Your task to perform on an android device: Go to wifi settings Image 0: 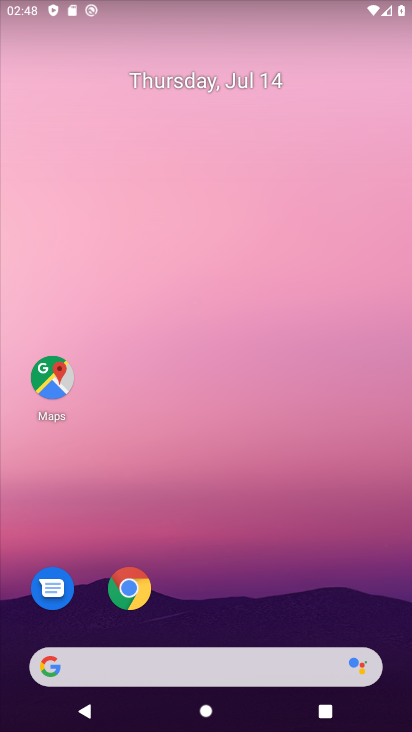
Step 0: drag from (223, 609) to (184, 140)
Your task to perform on an android device: Go to wifi settings Image 1: 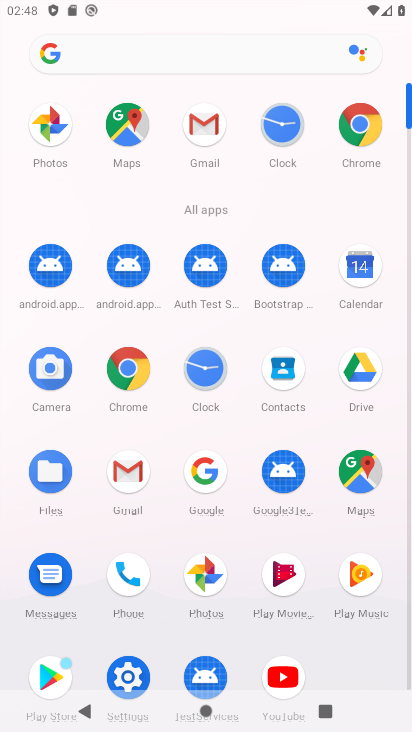
Step 1: click (130, 669)
Your task to perform on an android device: Go to wifi settings Image 2: 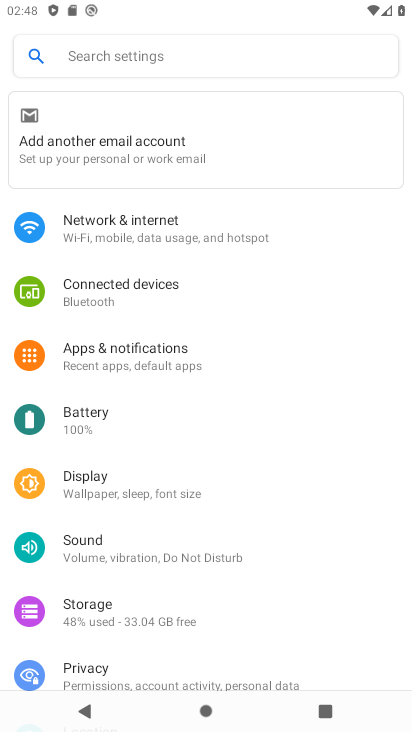
Step 2: click (139, 223)
Your task to perform on an android device: Go to wifi settings Image 3: 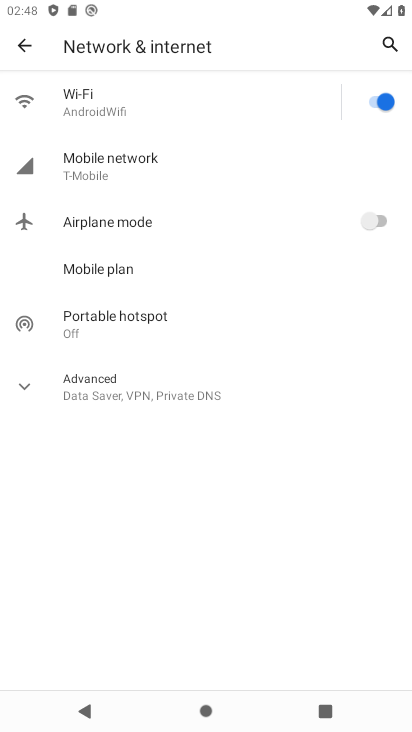
Step 3: click (150, 96)
Your task to perform on an android device: Go to wifi settings Image 4: 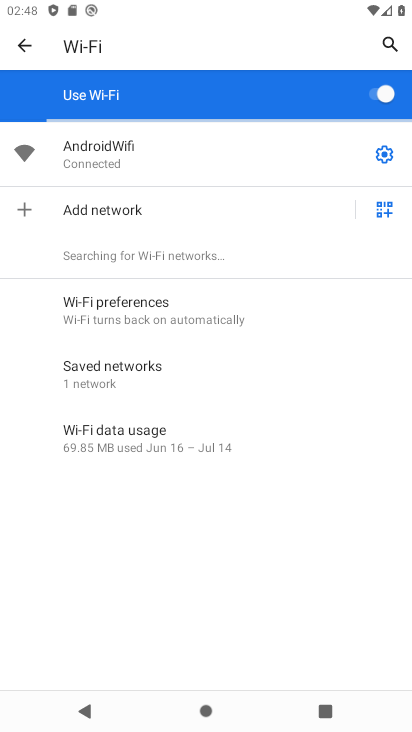
Step 4: task complete